Your task to perform on an android device: See recent photos Image 0: 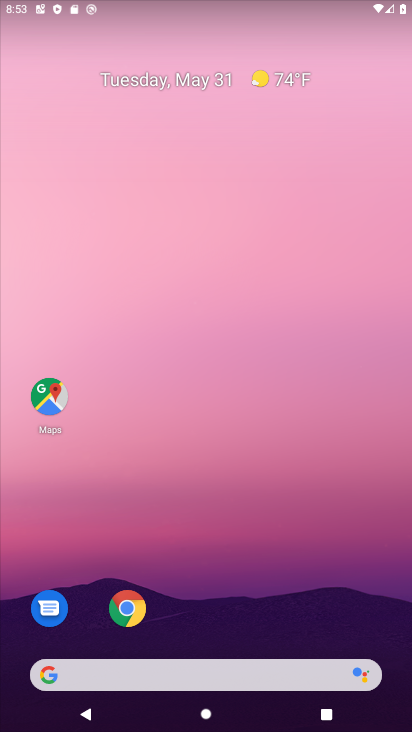
Step 0: drag from (213, 652) to (207, 144)
Your task to perform on an android device: See recent photos Image 1: 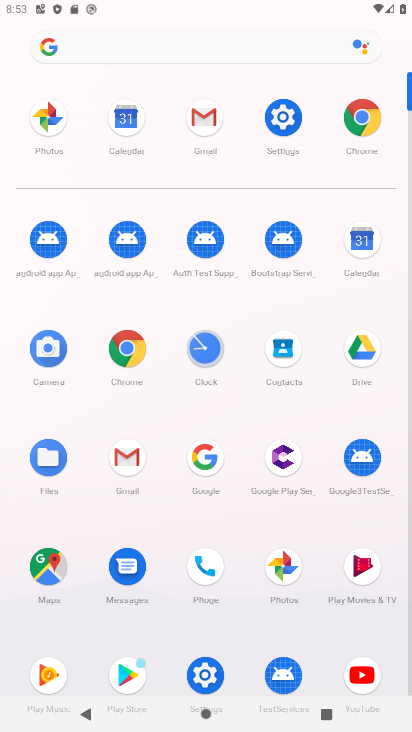
Step 1: click (279, 559)
Your task to perform on an android device: See recent photos Image 2: 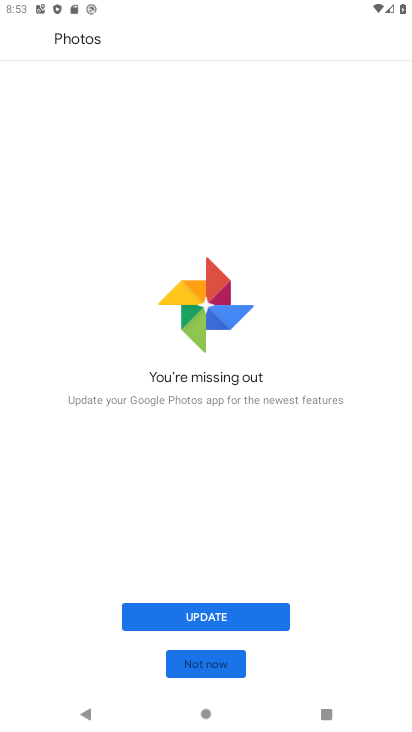
Step 2: click (208, 664)
Your task to perform on an android device: See recent photos Image 3: 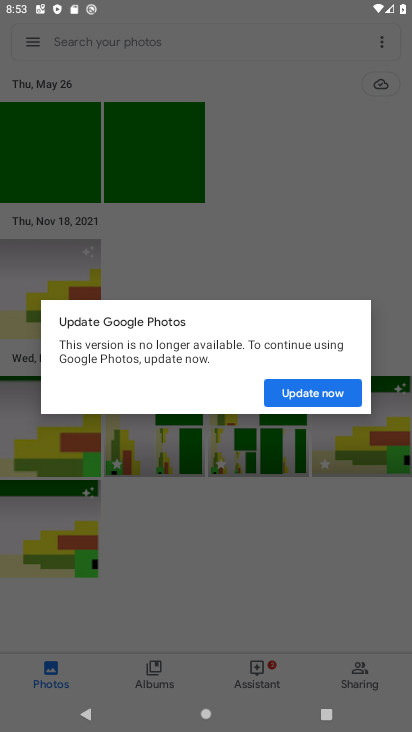
Step 3: click (333, 393)
Your task to perform on an android device: See recent photos Image 4: 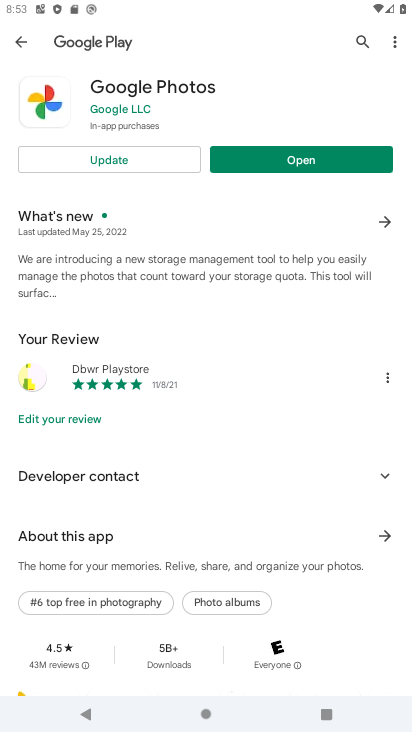
Step 4: click (277, 175)
Your task to perform on an android device: See recent photos Image 5: 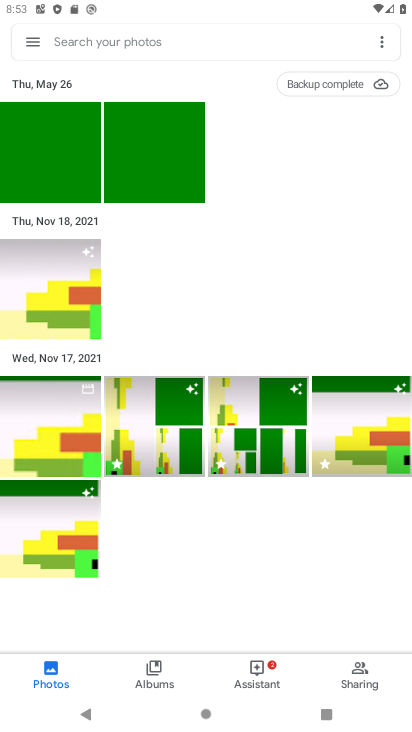
Step 5: task complete